Your task to perform on an android device: Go to Maps Image 0: 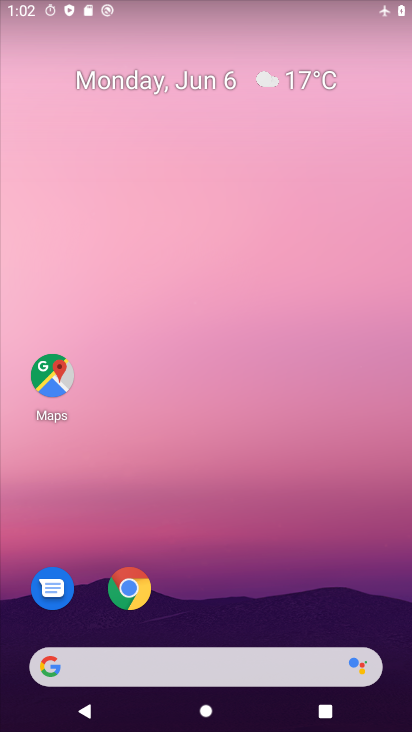
Step 0: drag from (199, 6) to (318, 12)
Your task to perform on an android device: Go to Maps Image 1: 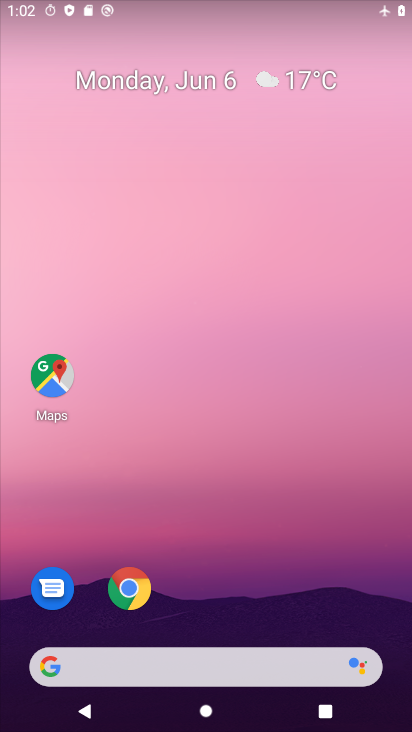
Step 1: click (62, 392)
Your task to perform on an android device: Go to Maps Image 2: 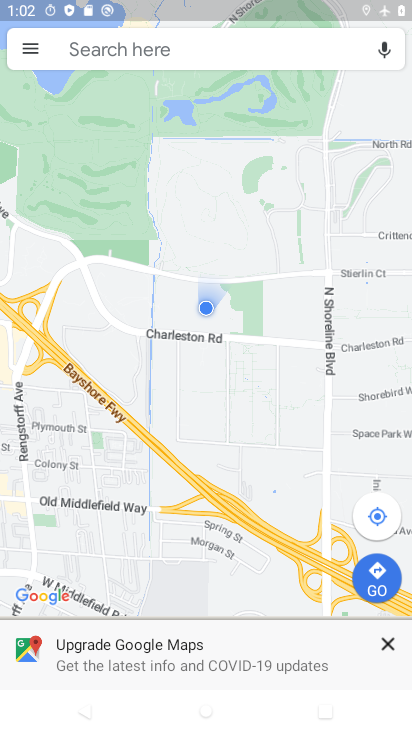
Step 2: task complete